Your task to perform on an android device: check out phone information Image 0: 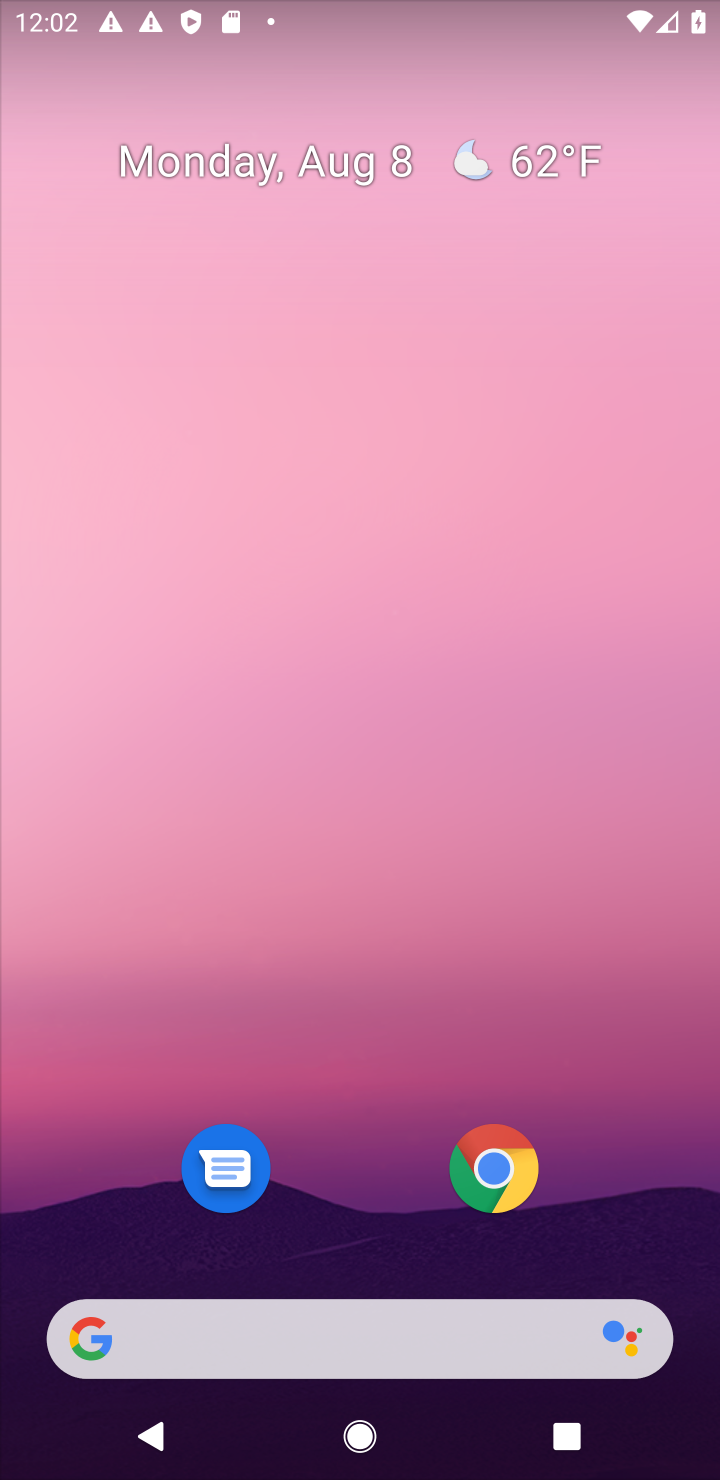
Step 0: drag from (344, 1261) to (293, 317)
Your task to perform on an android device: check out phone information Image 1: 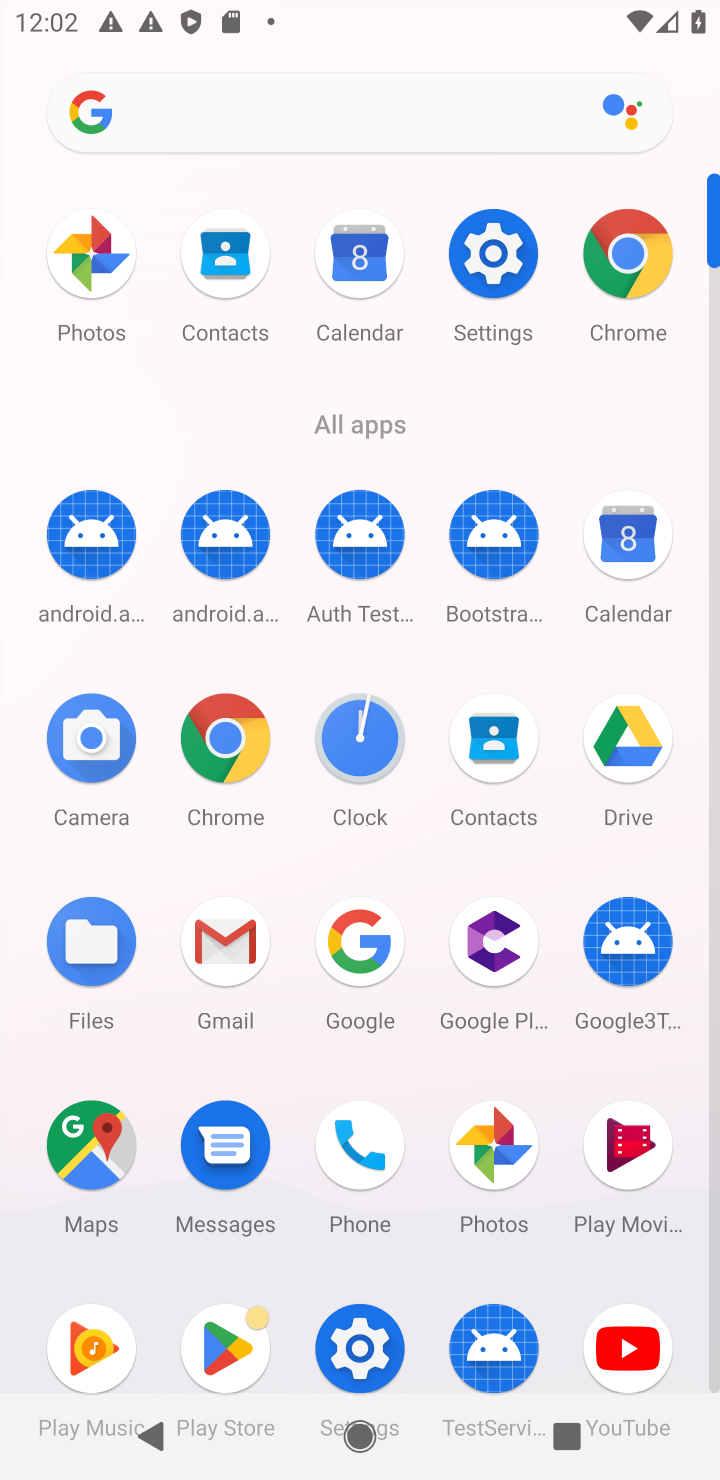
Step 1: click (468, 310)
Your task to perform on an android device: check out phone information Image 2: 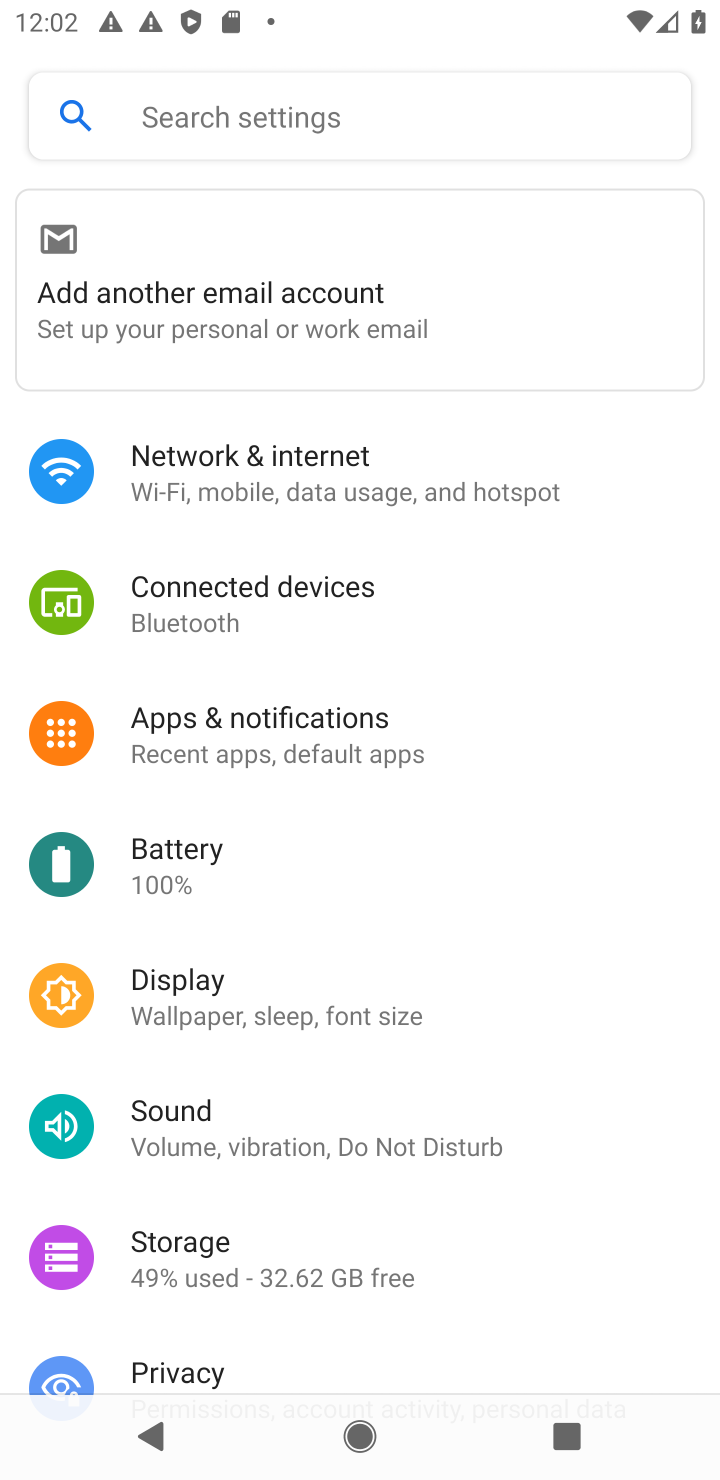
Step 2: task complete